Your task to perform on an android device: toggle notifications settings in the gmail app Image 0: 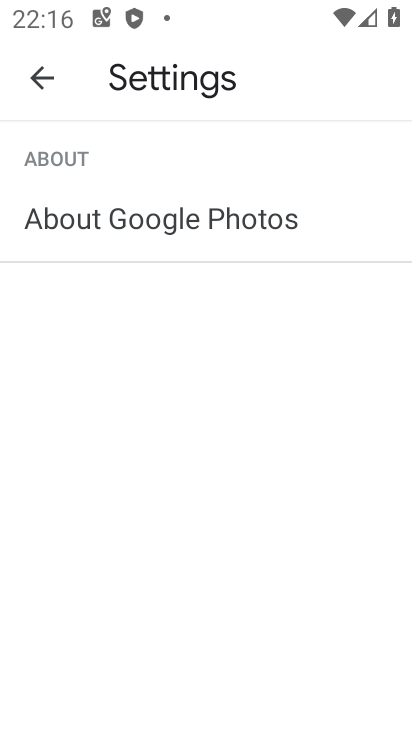
Step 0: press home button
Your task to perform on an android device: toggle notifications settings in the gmail app Image 1: 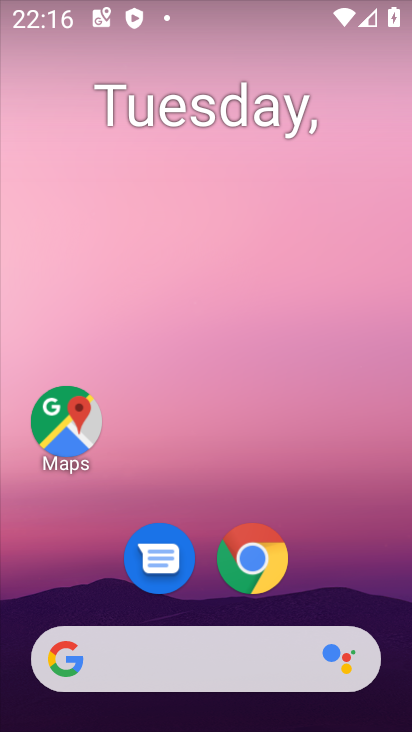
Step 1: drag from (334, 578) to (325, 68)
Your task to perform on an android device: toggle notifications settings in the gmail app Image 2: 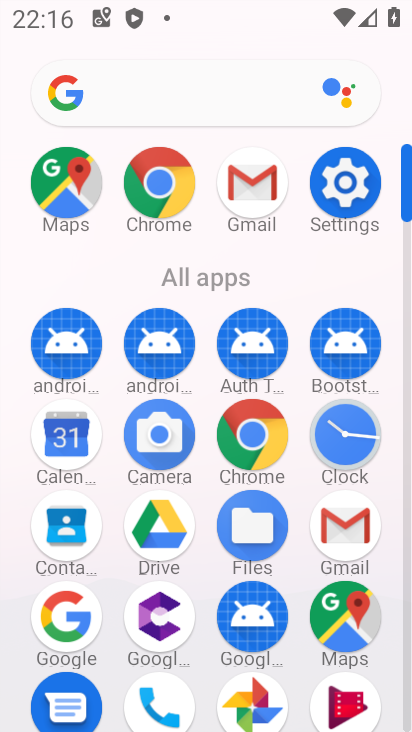
Step 2: click (240, 189)
Your task to perform on an android device: toggle notifications settings in the gmail app Image 3: 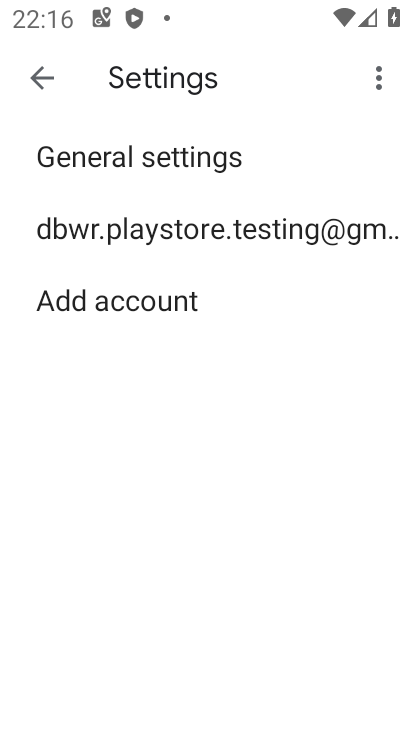
Step 3: click (230, 225)
Your task to perform on an android device: toggle notifications settings in the gmail app Image 4: 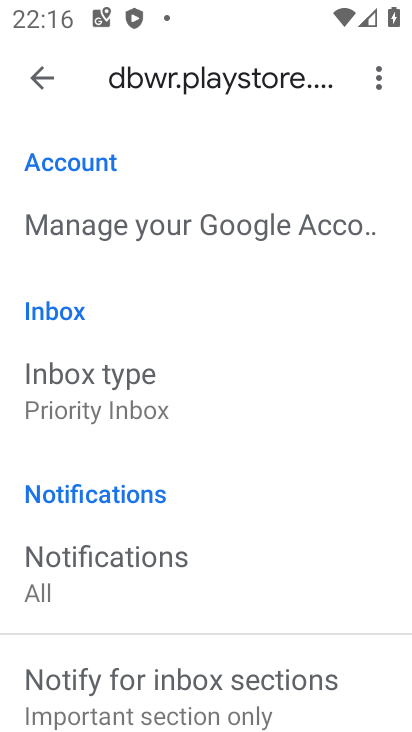
Step 4: drag from (163, 612) to (286, 142)
Your task to perform on an android device: toggle notifications settings in the gmail app Image 5: 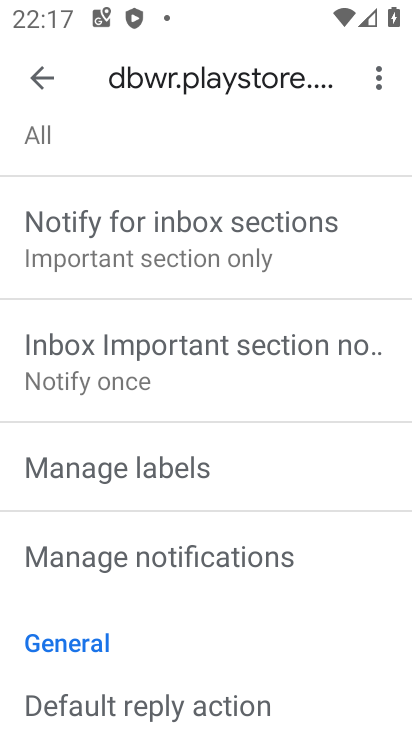
Step 5: click (156, 560)
Your task to perform on an android device: toggle notifications settings in the gmail app Image 6: 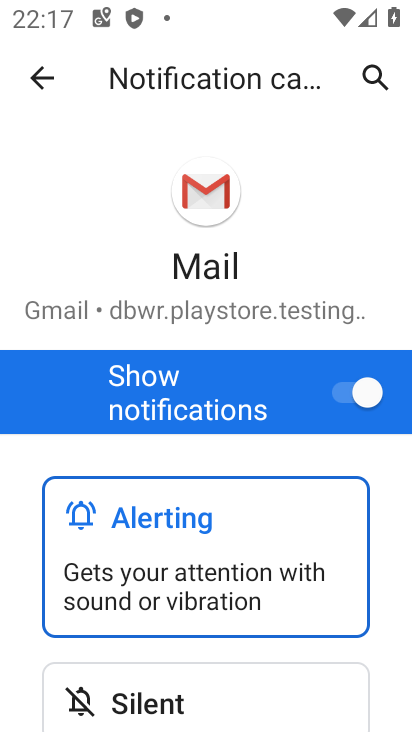
Step 6: click (366, 416)
Your task to perform on an android device: toggle notifications settings in the gmail app Image 7: 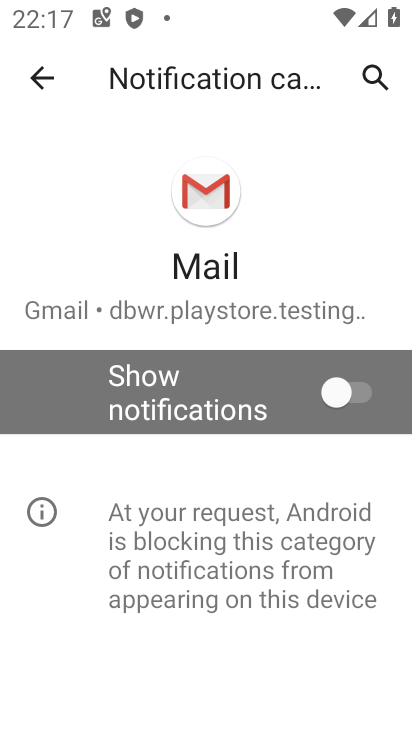
Step 7: task complete